Your task to perform on an android device: turn off translation in the chrome app Image 0: 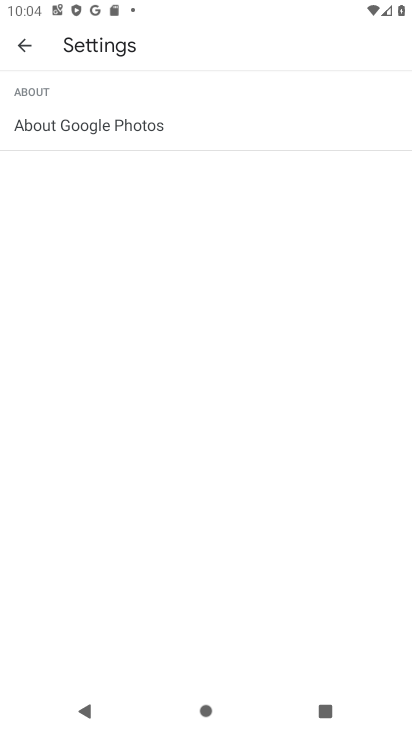
Step 0: press home button
Your task to perform on an android device: turn off translation in the chrome app Image 1: 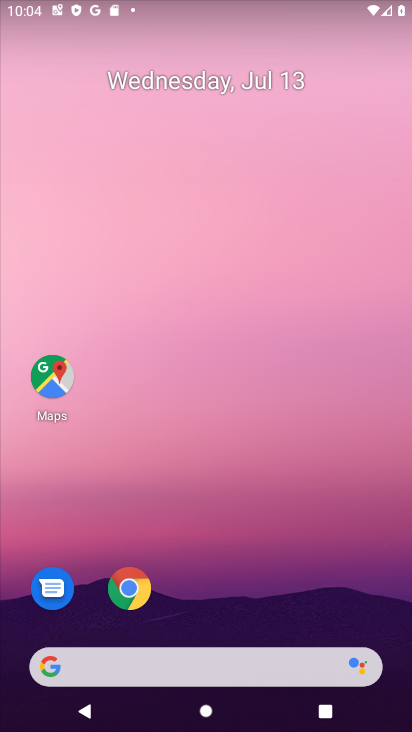
Step 1: click (128, 585)
Your task to perform on an android device: turn off translation in the chrome app Image 2: 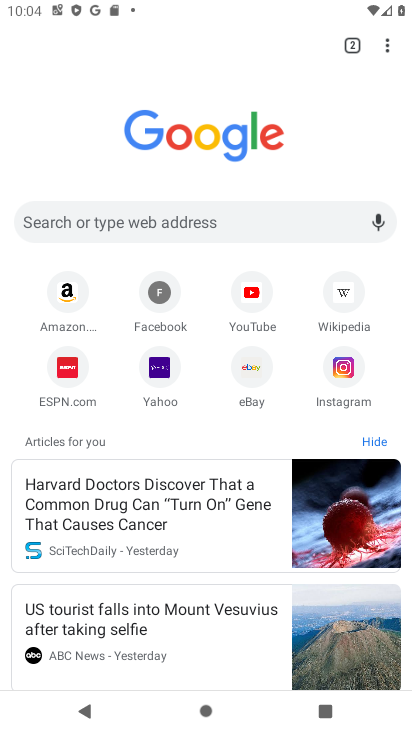
Step 2: click (385, 51)
Your task to perform on an android device: turn off translation in the chrome app Image 3: 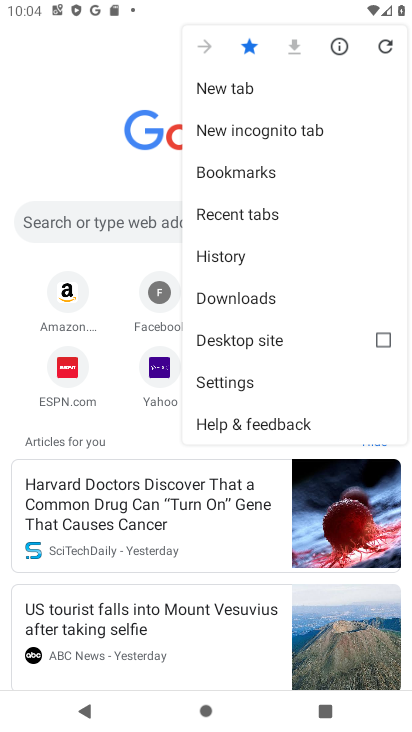
Step 3: click (266, 379)
Your task to perform on an android device: turn off translation in the chrome app Image 4: 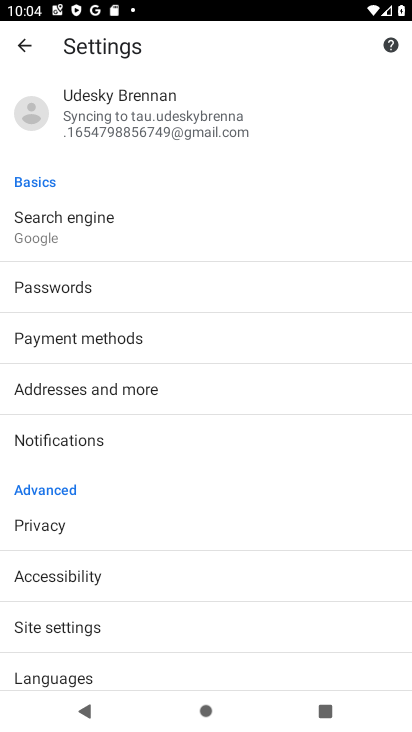
Step 4: drag from (180, 582) to (182, 278)
Your task to perform on an android device: turn off translation in the chrome app Image 5: 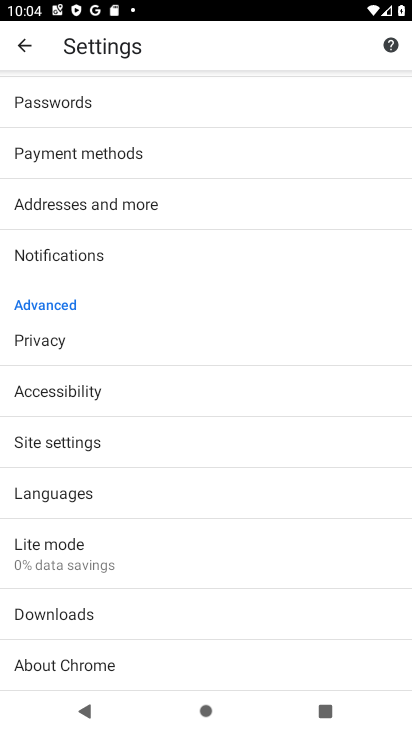
Step 5: click (83, 497)
Your task to perform on an android device: turn off translation in the chrome app Image 6: 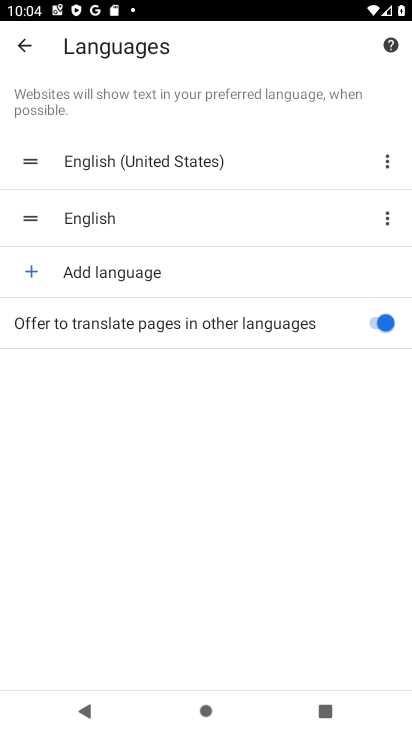
Step 6: click (371, 332)
Your task to perform on an android device: turn off translation in the chrome app Image 7: 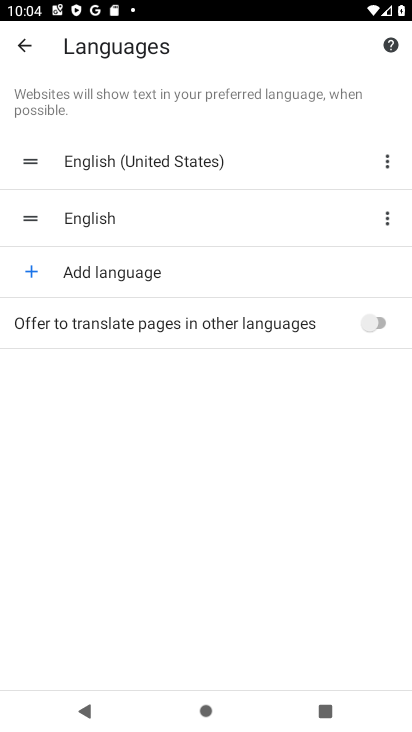
Step 7: task complete